Your task to perform on an android device: set the stopwatch Image 0: 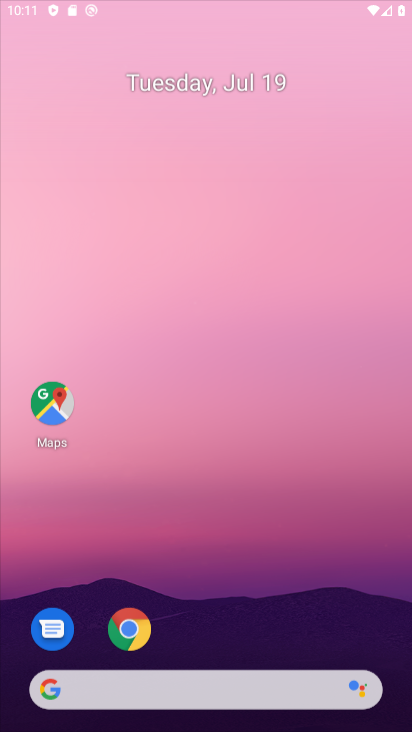
Step 0: press home button
Your task to perform on an android device: set the stopwatch Image 1: 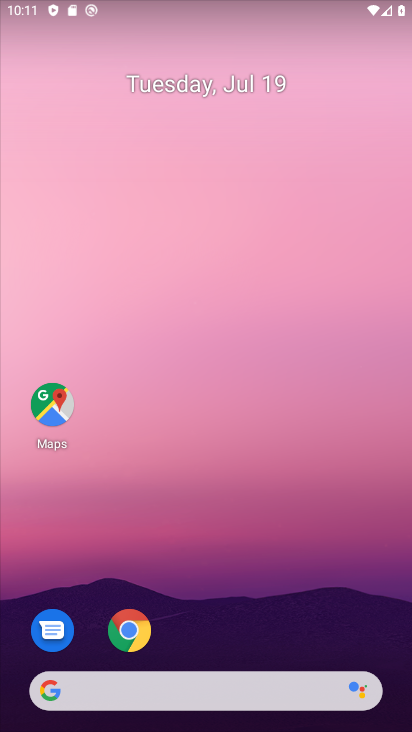
Step 1: drag from (249, 657) to (315, 94)
Your task to perform on an android device: set the stopwatch Image 2: 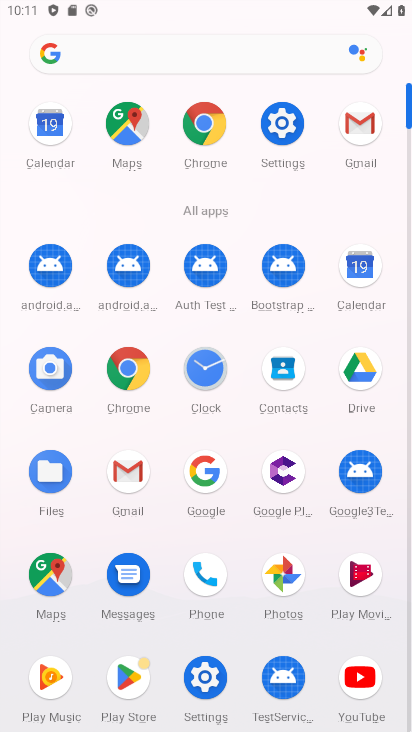
Step 2: click (210, 379)
Your task to perform on an android device: set the stopwatch Image 3: 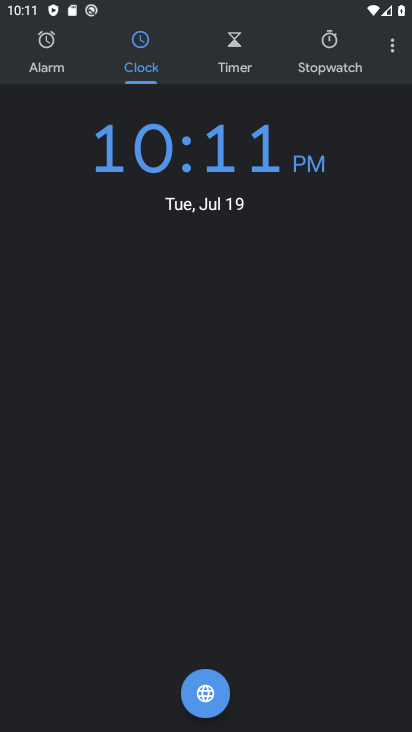
Step 3: click (315, 44)
Your task to perform on an android device: set the stopwatch Image 4: 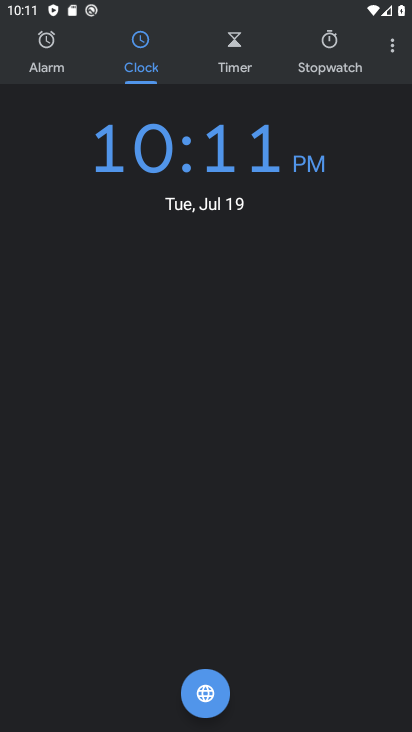
Step 4: click (324, 50)
Your task to perform on an android device: set the stopwatch Image 5: 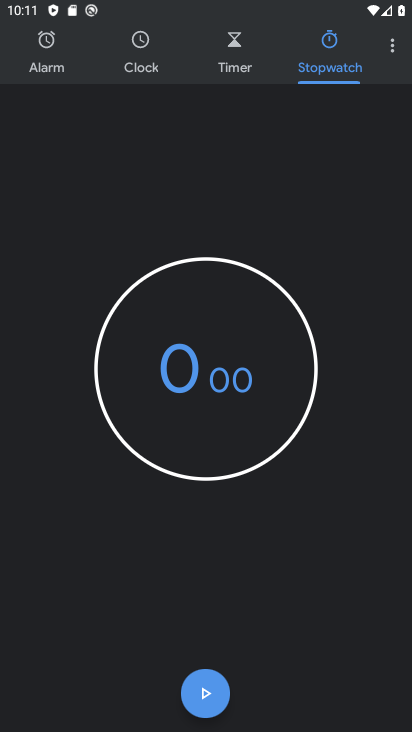
Step 5: click (202, 694)
Your task to perform on an android device: set the stopwatch Image 6: 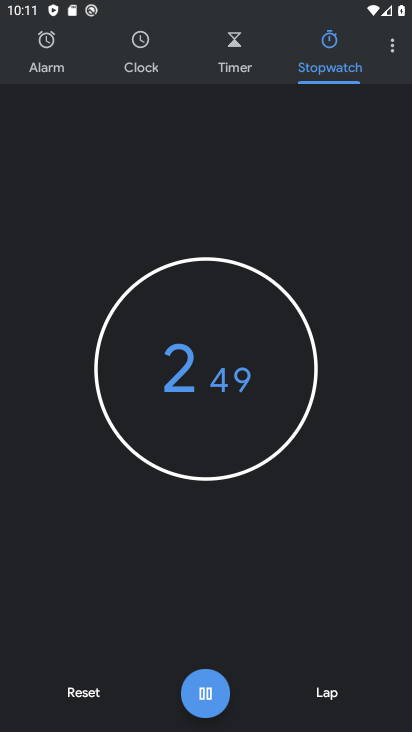
Step 6: task complete